Your task to perform on an android device: turn notification dots on Image 0: 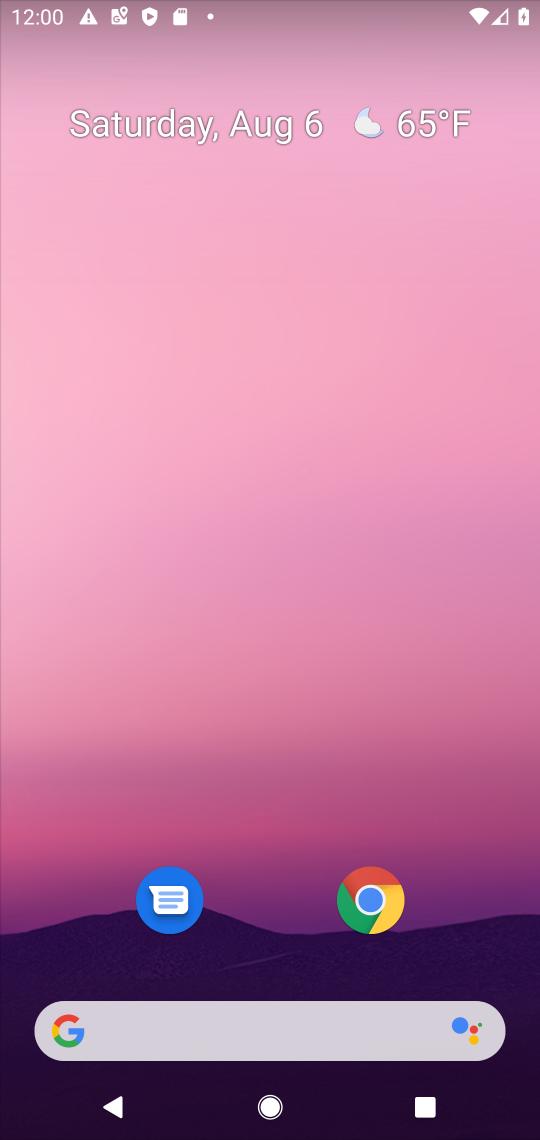
Step 0: drag from (254, 991) to (264, 91)
Your task to perform on an android device: turn notification dots on Image 1: 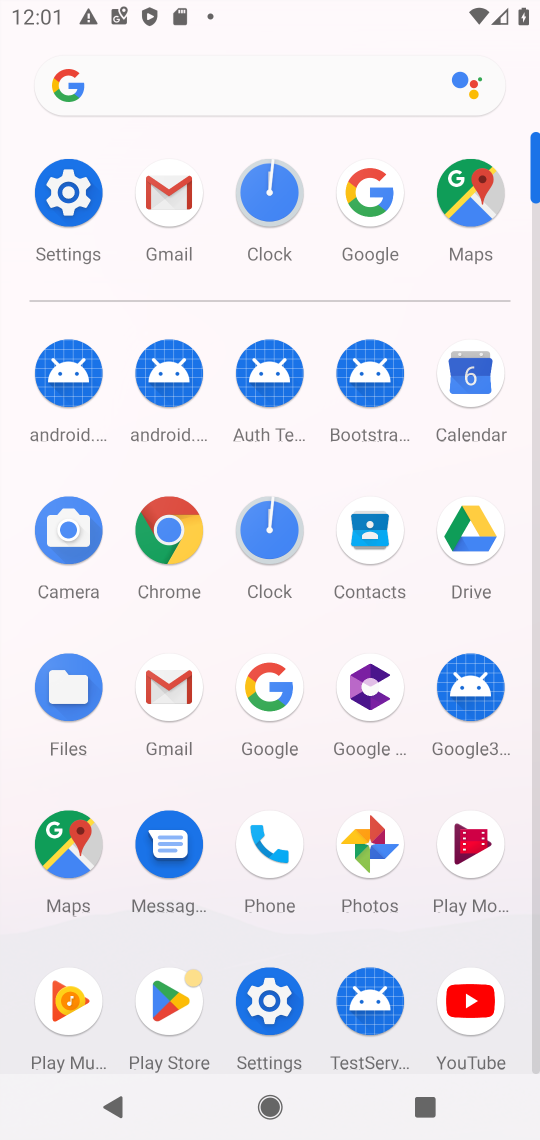
Step 1: click (77, 188)
Your task to perform on an android device: turn notification dots on Image 2: 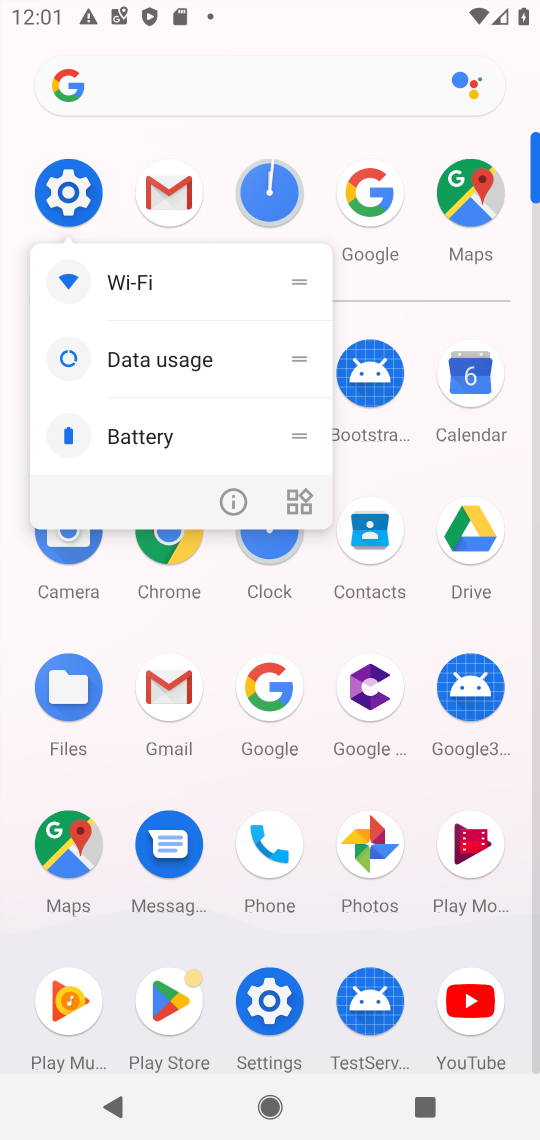
Step 2: click (56, 195)
Your task to perform on an android device: turn notification dots on Image 3: 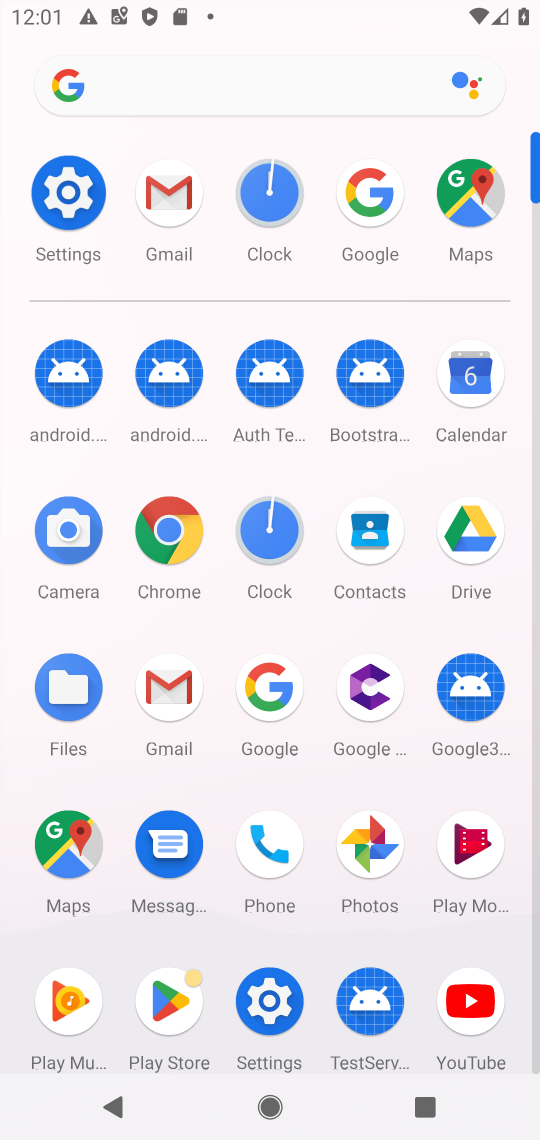
Step 3: click (60, 195)
Your task to perform on an android device: turn notification dots on Image 4: 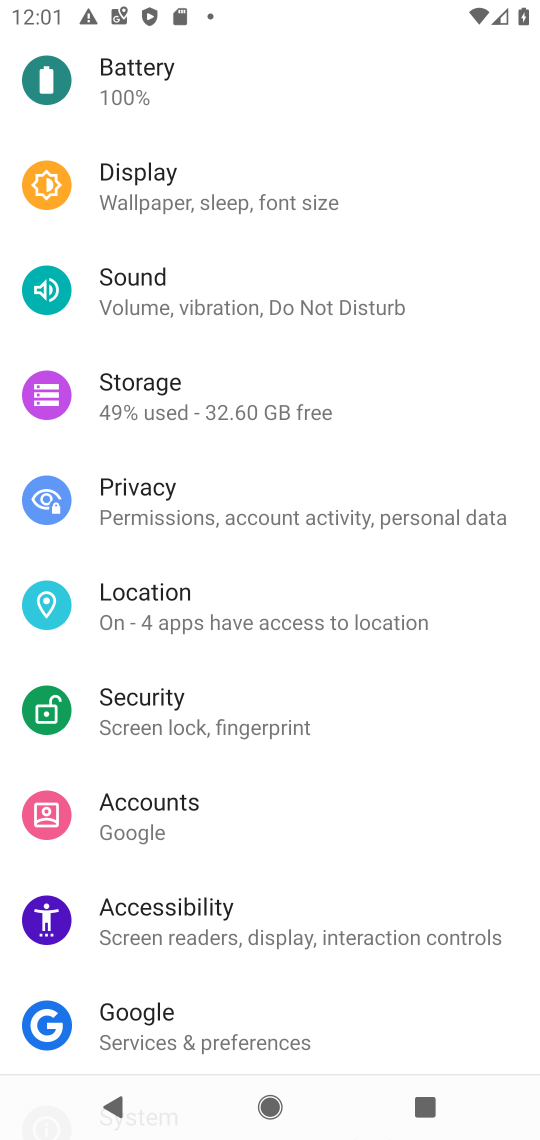
Step 4: drag from (227, 171) to (226, 964)
Your task to perform on an android device: turn notification dots on Image 5: 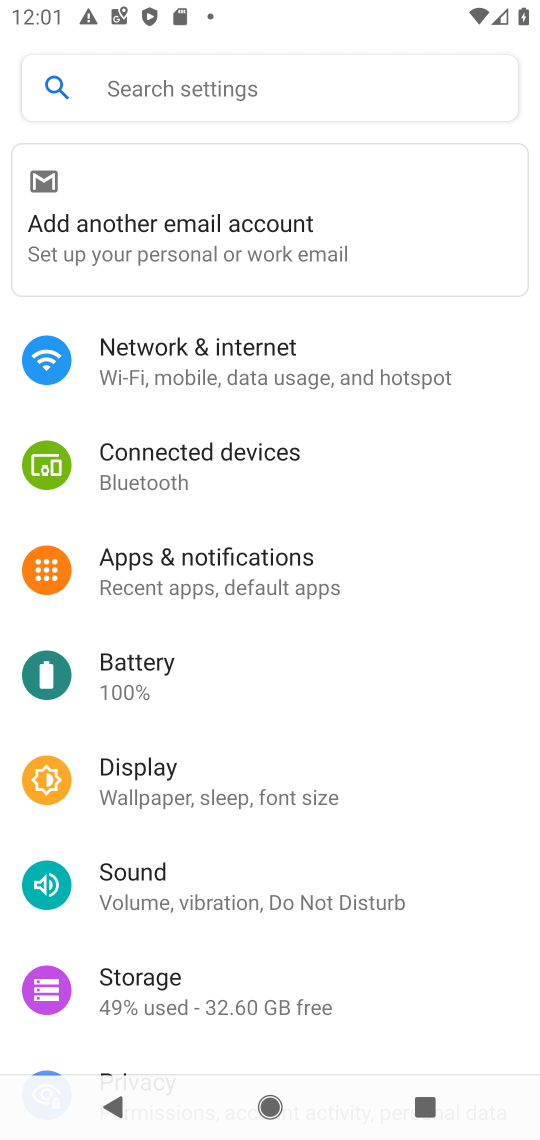
Step 5: click (225, 563)
Your task to perform on an android device: turn notification dots on Image 6: 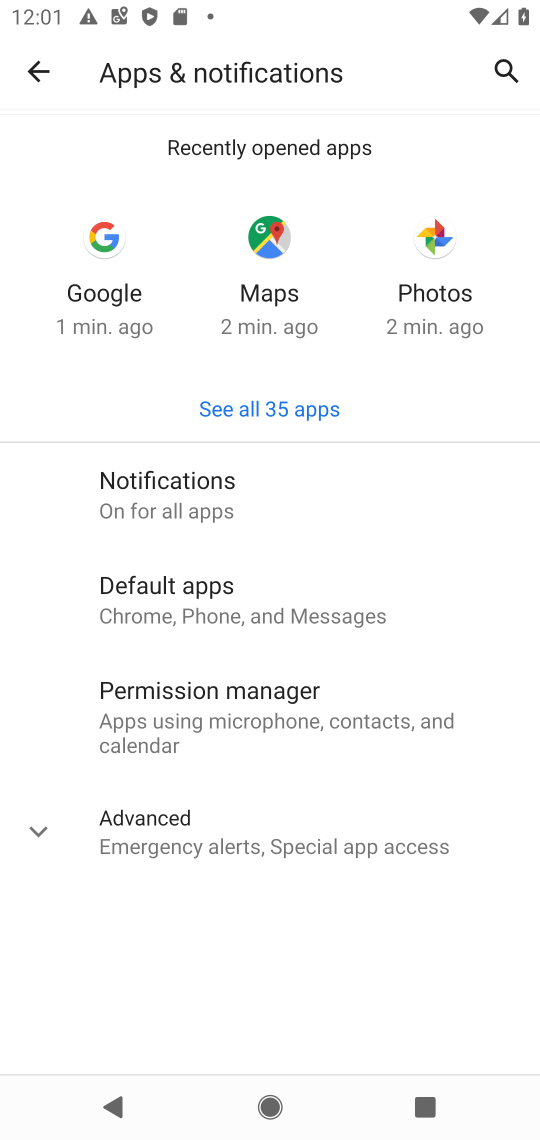
Step 6: click (155, 484)
Your task to perform on an android device: turn notification dots on Image 7: 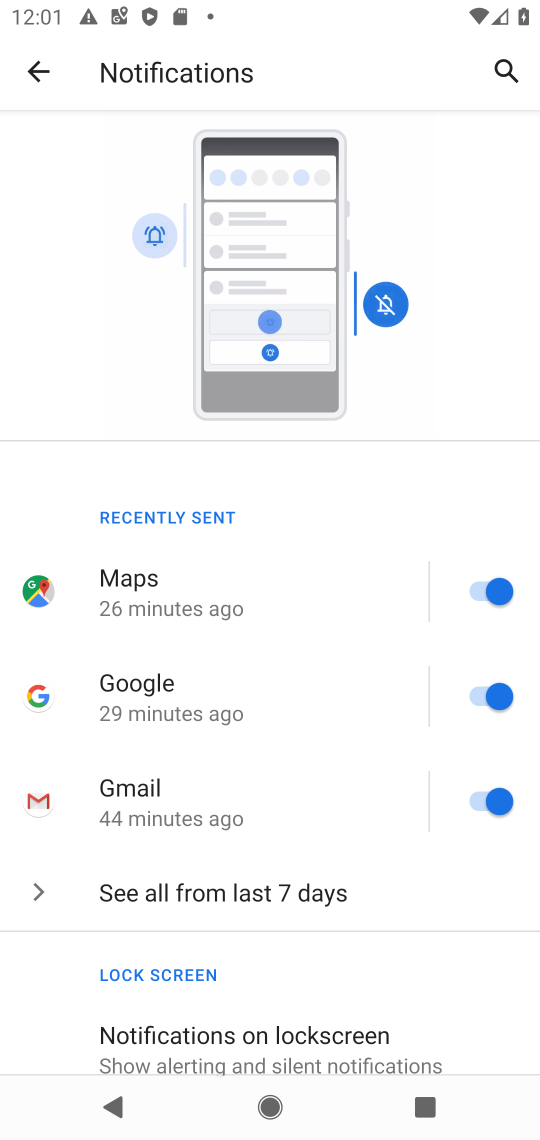
Step 7: drag from (189, 1023) to (130, 443)
Your task to perform on an android device: turn notification dots on Image 8: 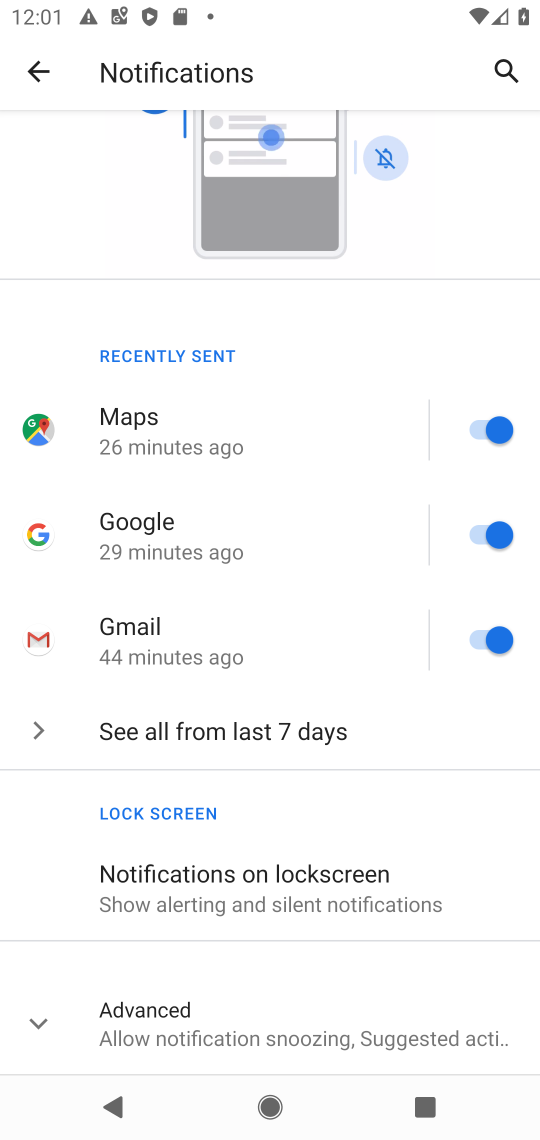
Step 8: click (146, 1014)
Your task to perform on an android device: turn notification dots on Image 9: 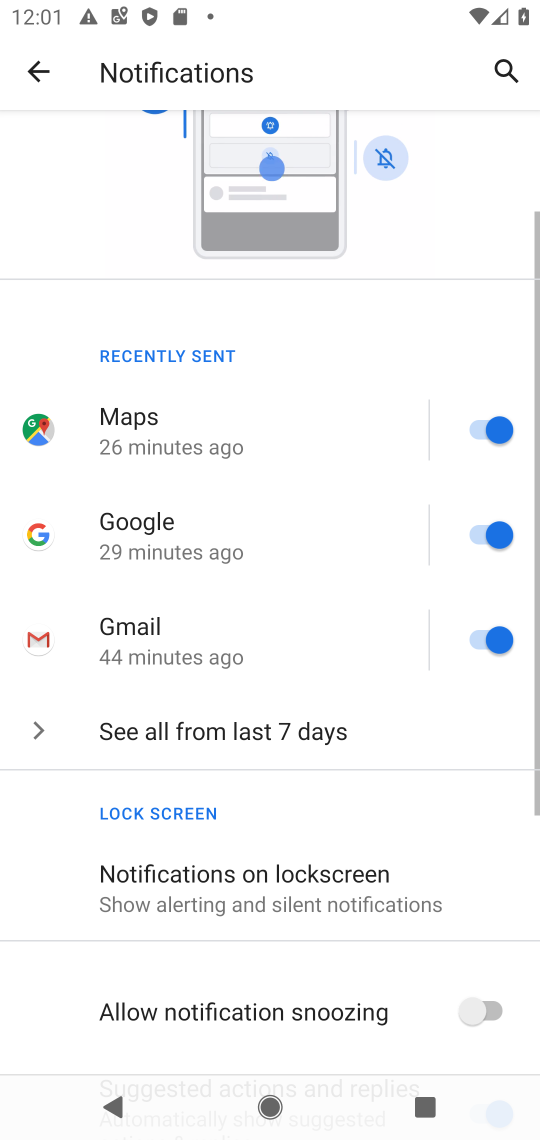
Step 9: task complete